Your task to perform on an android device: uninstall "DuckDuckGo Privacy Browser" Image 0: 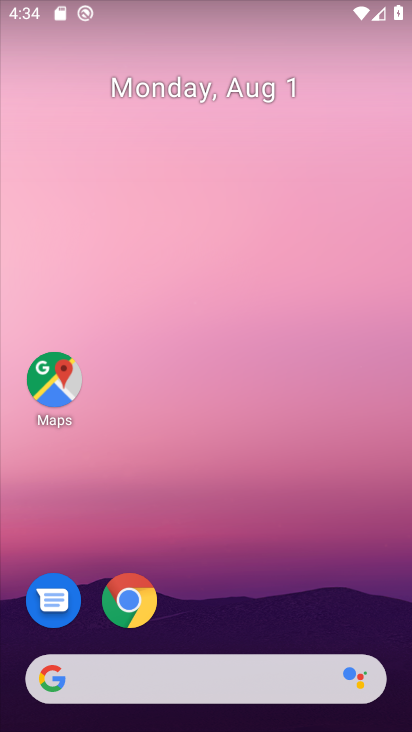
Step 0: drag from (256, 586) to (98, 0)
Your task to perform on an android device: uninstall "DuckDuckGo Privacy Browser" Image 1: 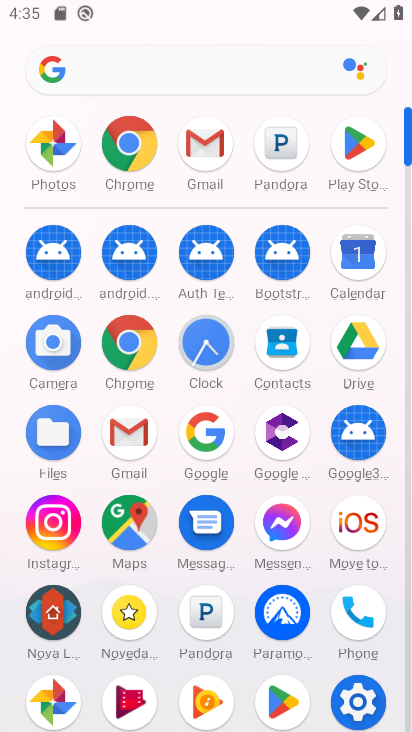
Step 1: click (367, 135)
Your task to perform on an android device: uninstall "DuckDuckGo Privacy Browser" Image 2: 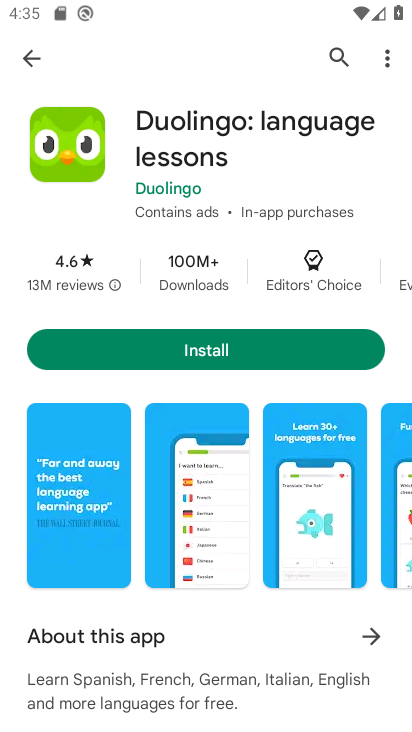
Step 2: click (338, 50)
Your task to perform on an android device: uninstall "DuckDuckGo Privacy Browser" Image 3: 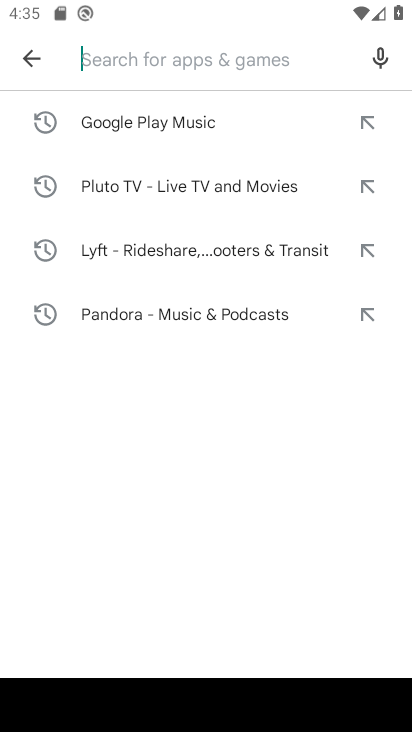
Step 3: type "DuckDuckGo Privacy Browser"
Your task to perform on an android device: uninstall "DuckDuckGo Privacy Browser" Image 4: 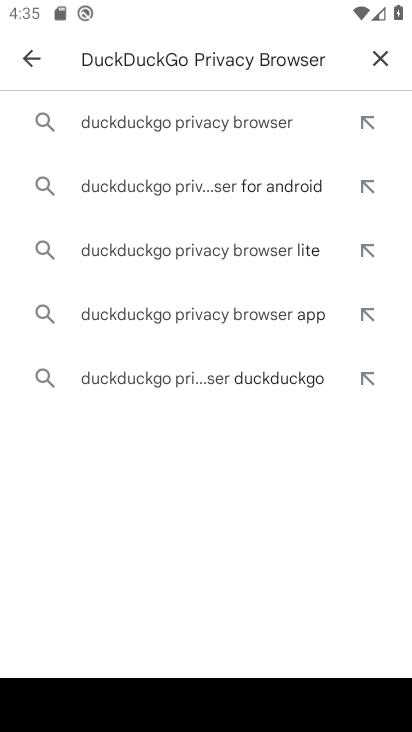
Step 4: press enter
Your task to perform on an android device: uninstall "DuckDuckGo Privacy Browser" Image 5: 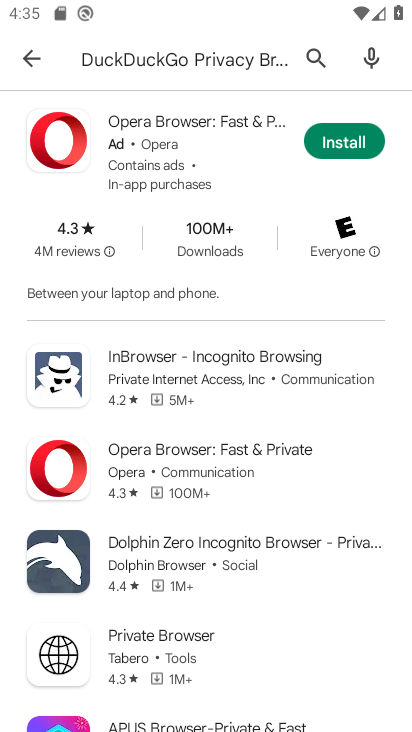
Step 5: click (200, 469)
Your task to perform on an android device: uninstall "DuckDuckGo Privacy Browser" Image 6: 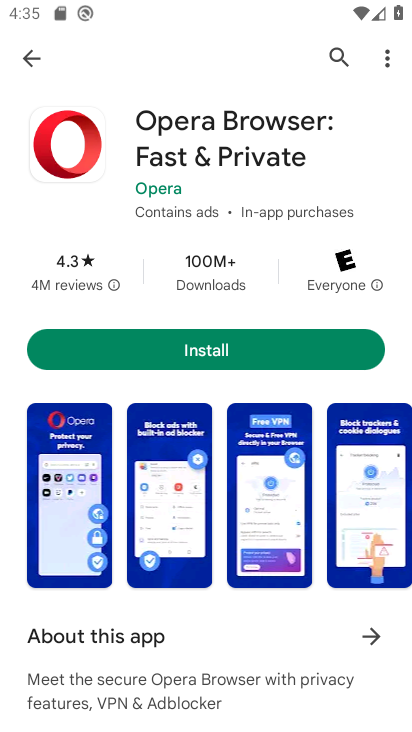
Step 6: task complete